Your task to perform on an android device: Go to Wikipedia Image 0: 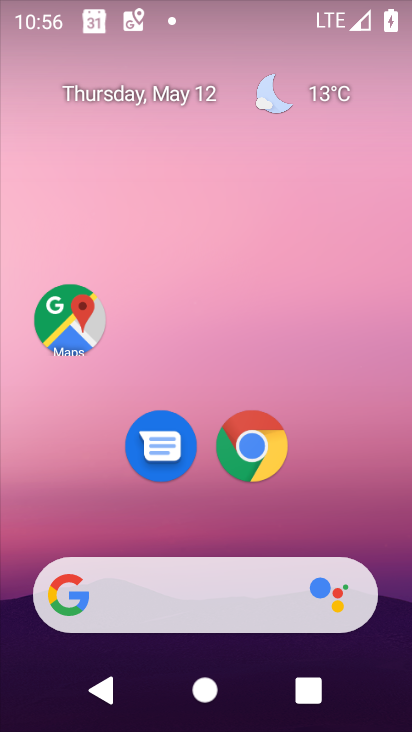
Step 0: drag from (280, 560) to (271, 0)
Your task to perform on an android device: Go to Wikipedia Image 1: 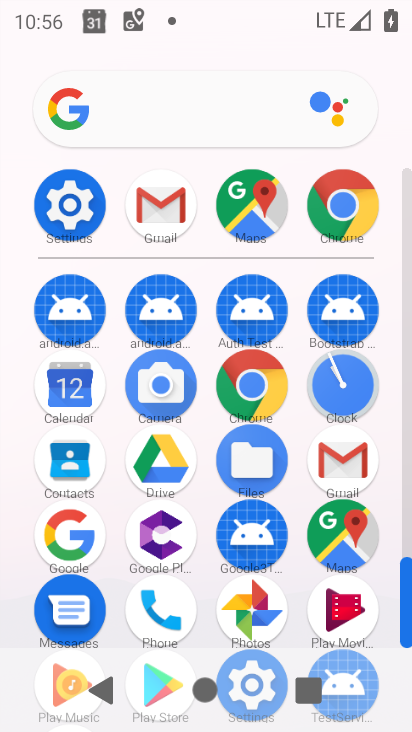
Step 1: click (254, 378)
Your task to perform on an android device: Go to Wikipedia Image 2: 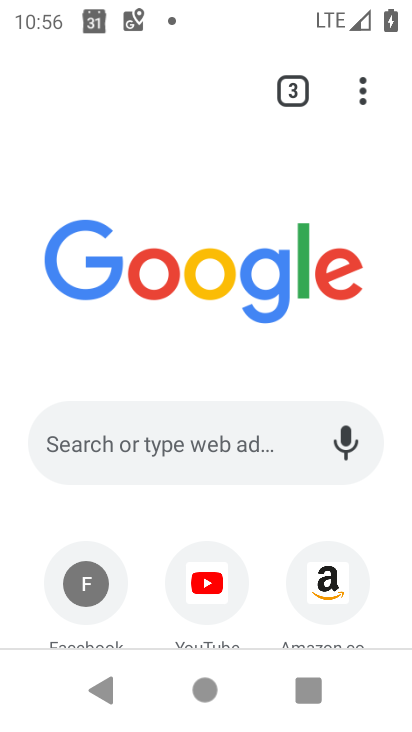
Step 2: click (259, 435)
Your task to perform on an android device: Go to Wikipedia Image 3: 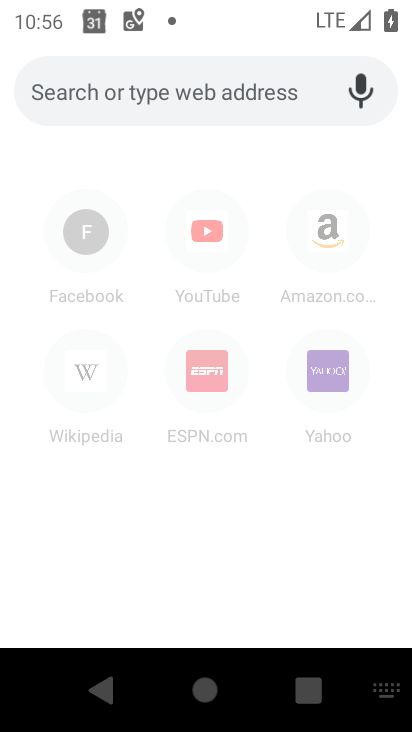
Step 3: press back button
Your task to perform on an android device: Go to Wikipedia Image 4: 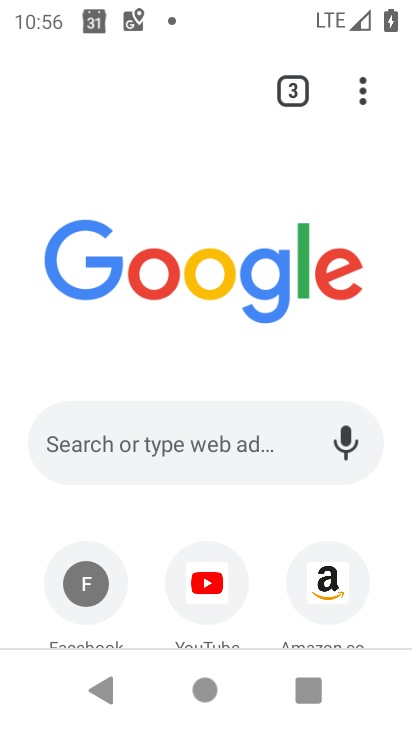
Step 4: click (110, 457)
Your task to perform on an android device: Go to Wikipedia Image 5: 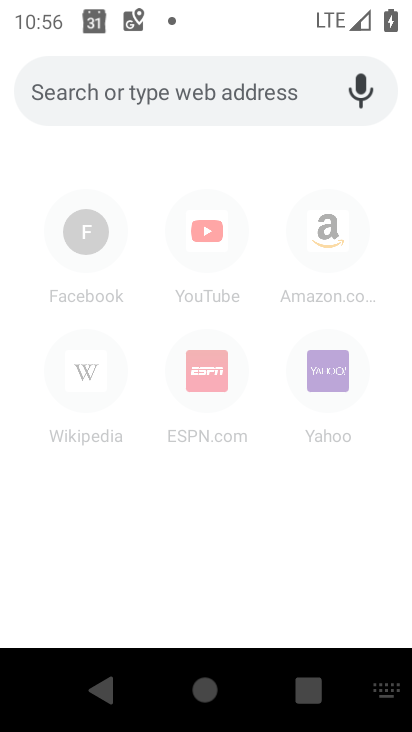
Step 5: type "wikipedia"
Your task to perform on an android device: Go to Wikipedia Image 6: 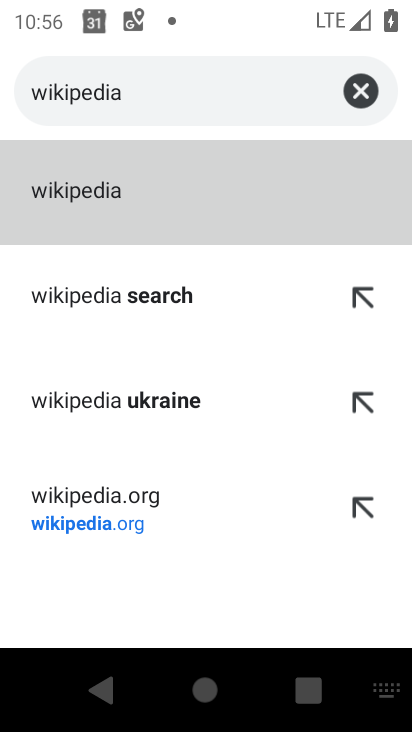
Step 6: click (123, 206)
Your task to perform on an android device: Go to Wikipedia Image 7: 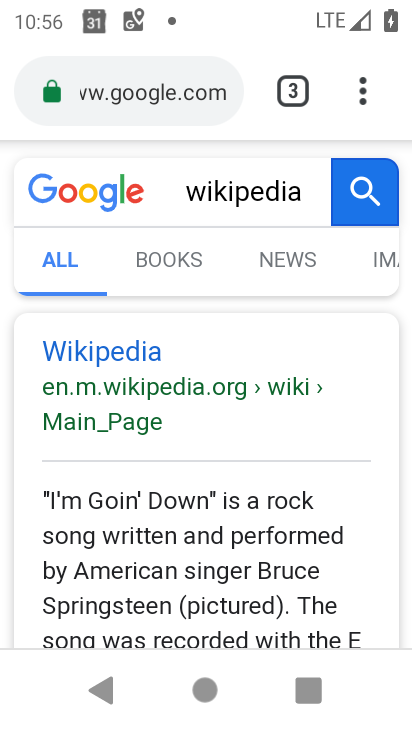
Step 7: task complete